Your task to perform on an android device: Search for seafood restaurants on Google Maps Image 0: 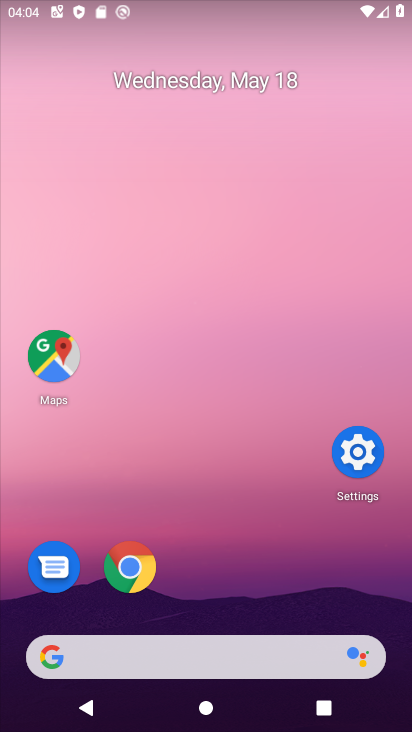
Step 0: click (56, 357)
Your task to perform on an android device: Search for seafood restaurants on Google Maps Image 1: 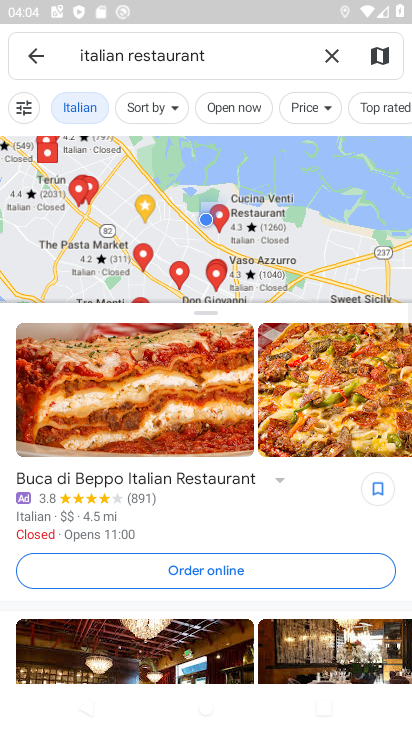
Step 1: click (328, 59)
Your task to perform on an android device: Search for seafood restaurants on Google Maps Image 2: 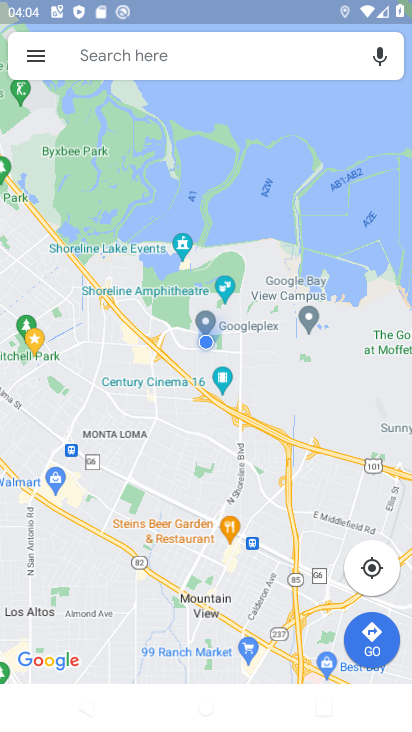
Step 2: type " seafood restaurants"
Your task to perform on an android device: Search for seafood restaurants on Google Maps Image 3: 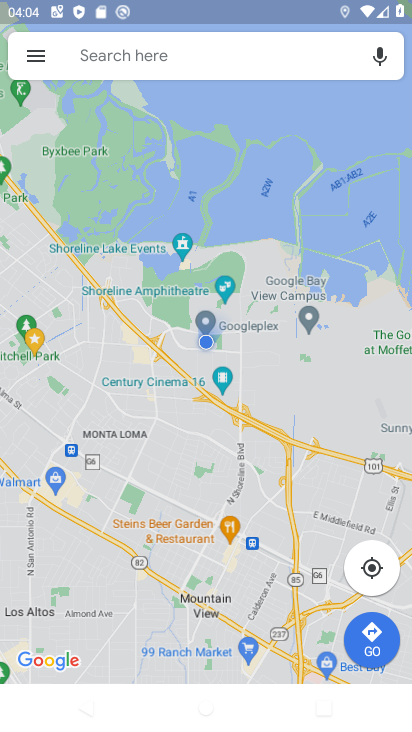
Step 3: click (179, 56)
Your task to perform on an android device: Search for seafood restaurants on Google Maps Image 4: 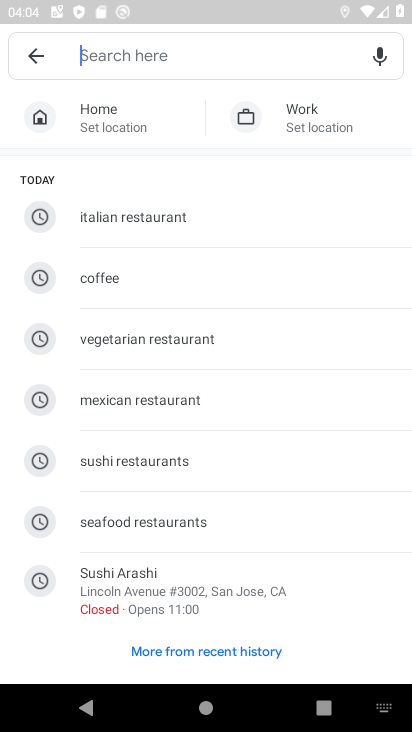
Step 4: type " seafood restaurants"
Your task to perform on an android device: Search for seafood restaurants on Google Maps Image 5: 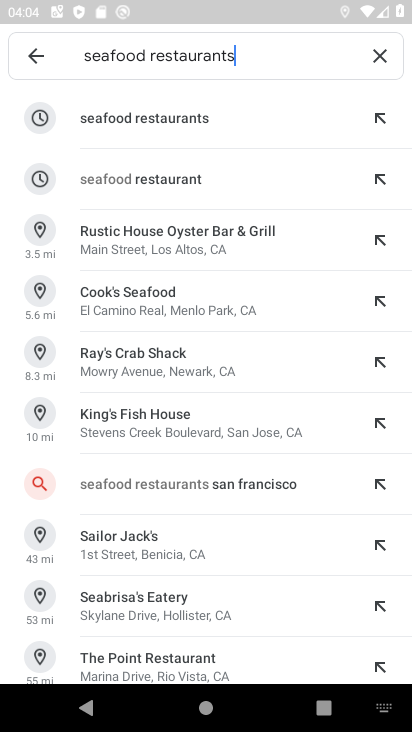
Step 5: click (144, 119)
Your task to perform on an android device: Search for seafood restaurants on Google Maps Image 6: 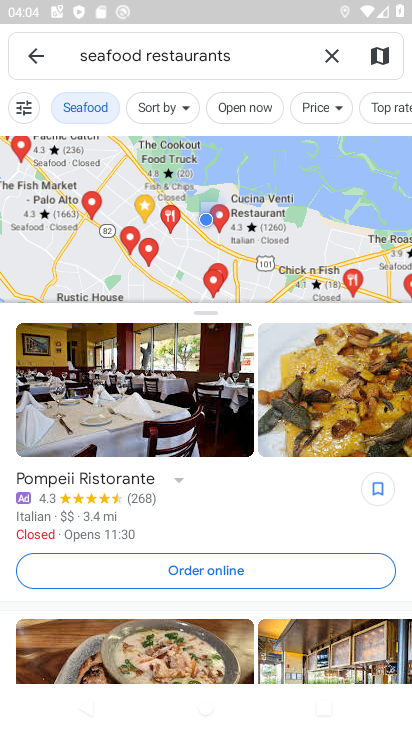
Step 6: task complete